Your task to perform on an android device: change the clock display to digital Image 0: 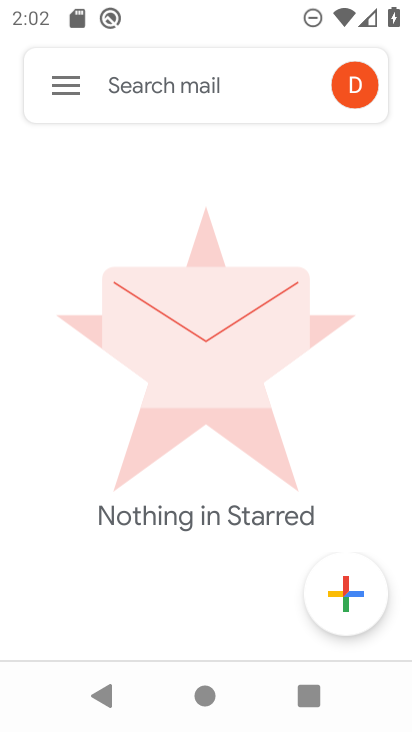
Step 0: press home button
Your task to perform on an android device: change the clock display to digital Image 1: 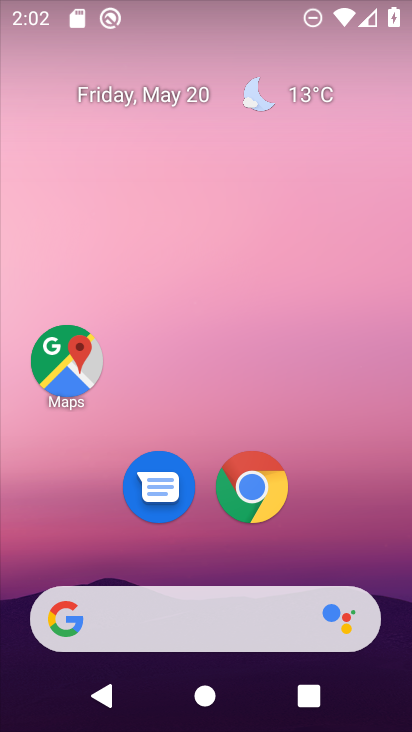
Step 1: drag from (214, 564) to (246, 82)
Your task to perform on an android device: change the clock display to digital Image 2: 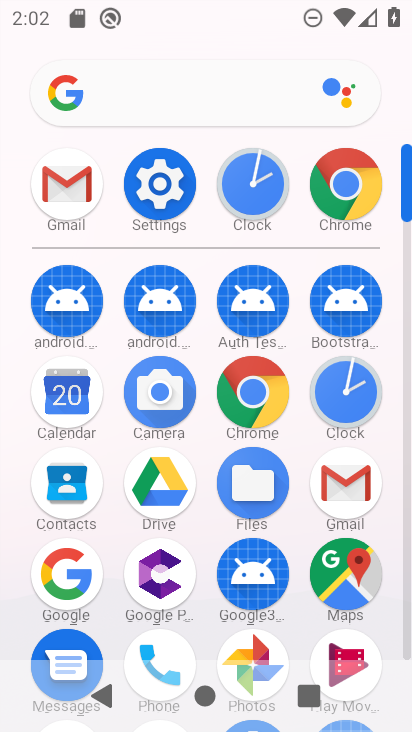
Step 2: click (342, 379)
Your task to perform on an android device: change the clock display to digital Image 3: 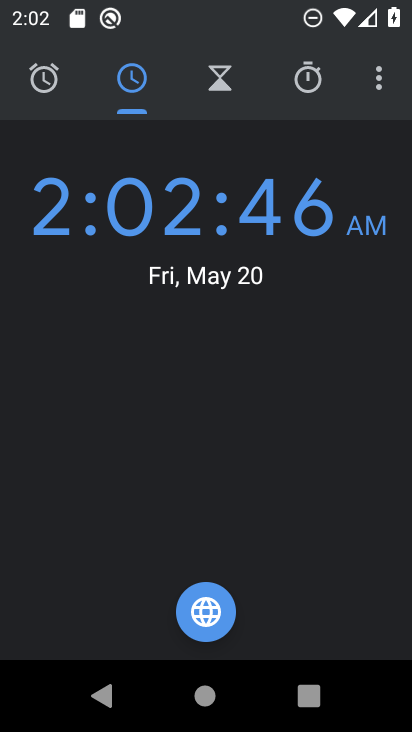
Step 3: click (377, 69)
Your task to perform on an android device: change the clock display to digital Image 4: 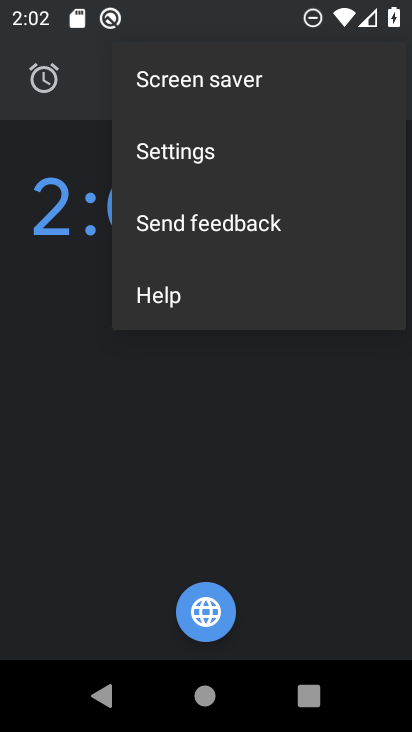
Step 4: click (229, 156)
Your task to perform on an android device: change the clock display to digital Image 5: 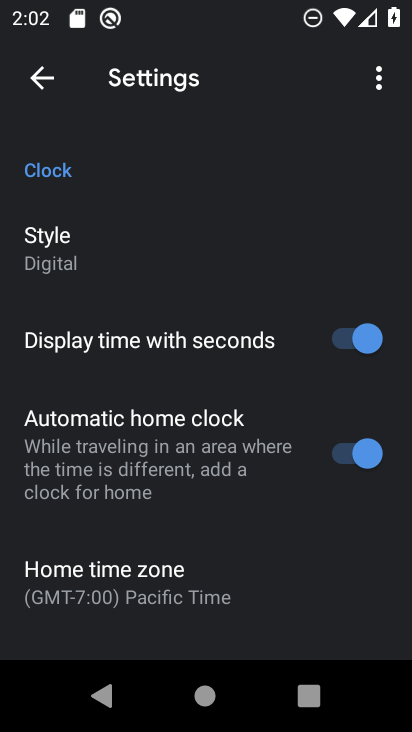
Step 5: click (108, 247)
Your task to perform on an android device: change the clock display to digital Image 6: 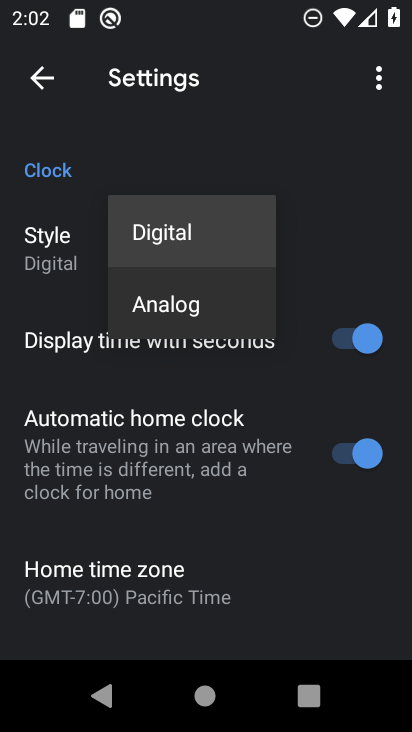
Step 6: click (143, 241)
Your task to perform on an android device: change the clock display to digital Image 7: 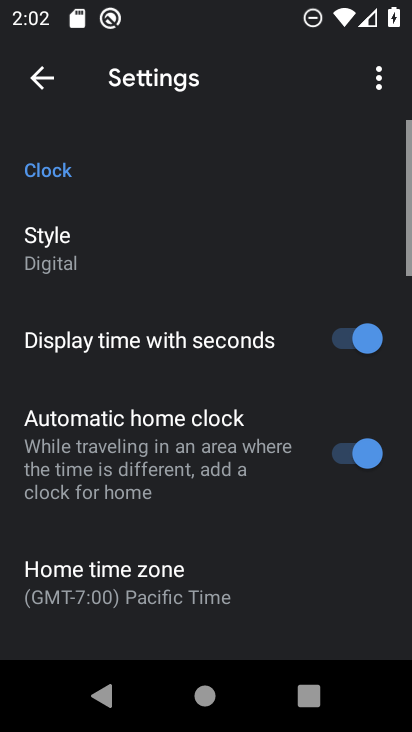
Step 7: task complete